Your task to perform on an android device: star an email in the gmail app Image 0: 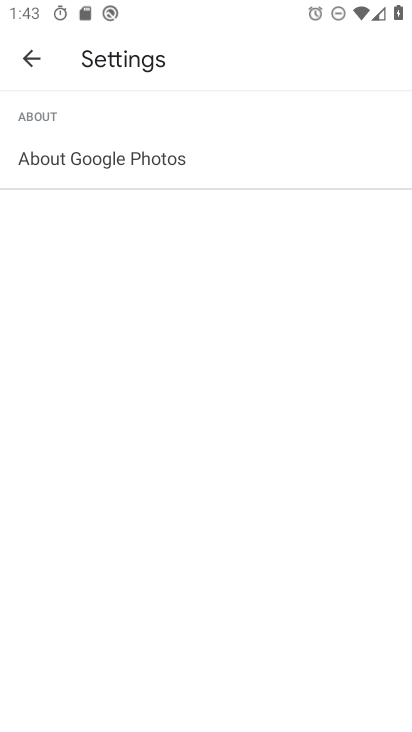
Step 0: press home button
Your task to perform on an android device: star an email in the gmail app Image 1: 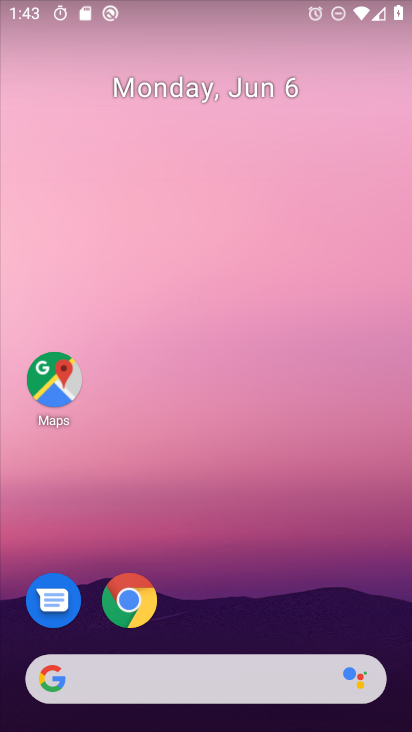
Step 1: drag from (200, 610) to (225, 224)
Your task to perform on an android device: star an email in the gmail app Image 2: 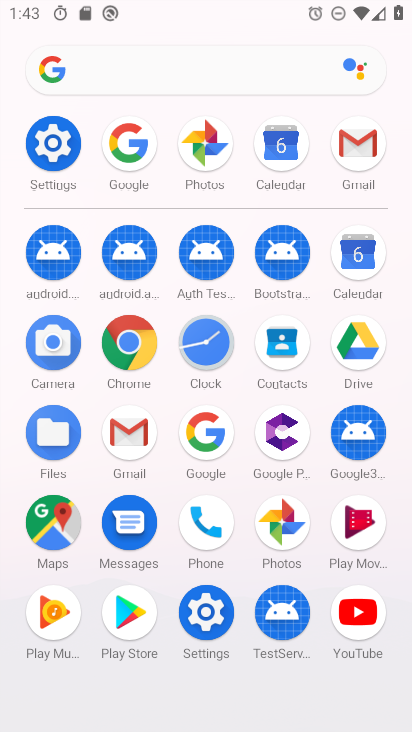
Step 2: click (362, 151)
Your task to perform on an android device: star an email in the gmail app Image 3: 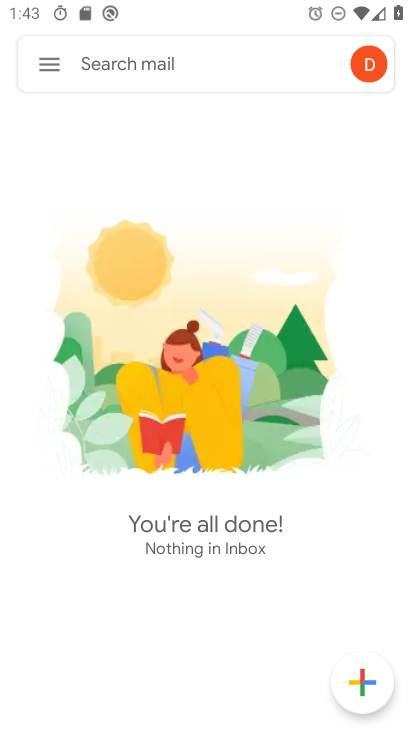
Step 3: click (45, 72)
Your task to perform on an android device: star an email in the gmail app Image 4: 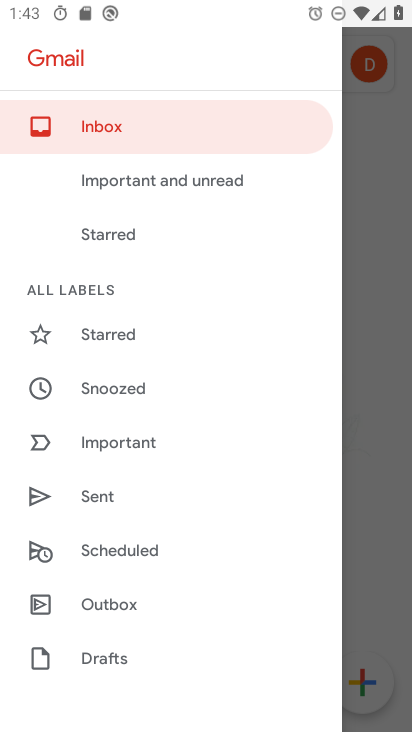
Step 4: drag from (178, 571) to (213, 294)
Your task to perform on an android device: star an email in the gmail app Image 5: 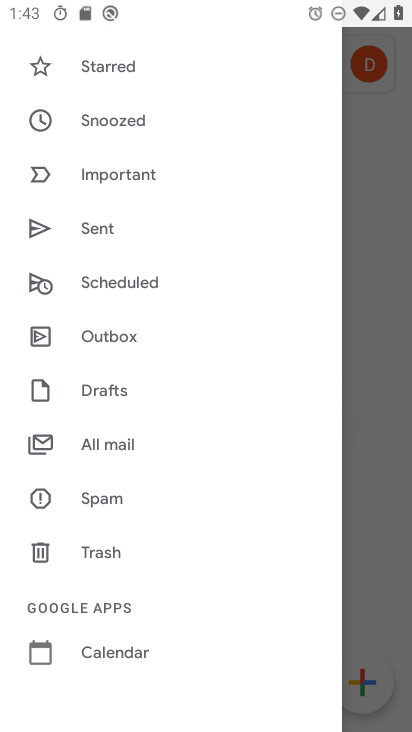
Step 5: click (129, 441)
Your task to perform on an android device: star an email in the gmail app Image 6: 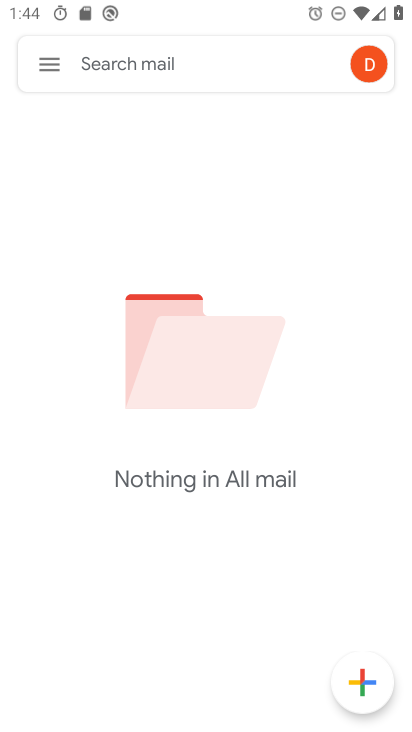
Step 6: task complete